Your task to perform on an android device: Open display settings Image 0: 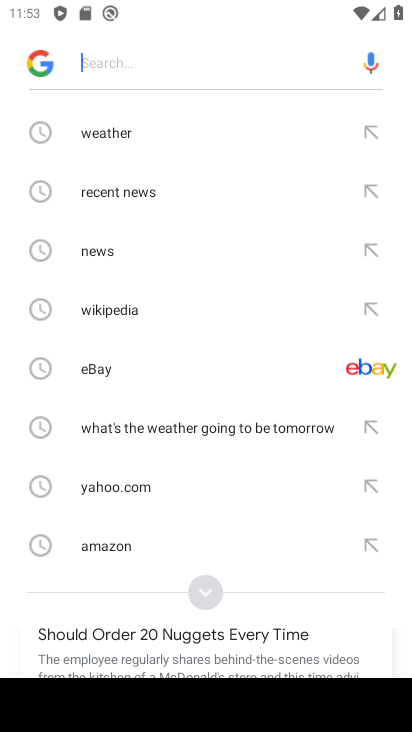
Step 0: press back button
Your task to perform on an android device: Open display settings Image 1: 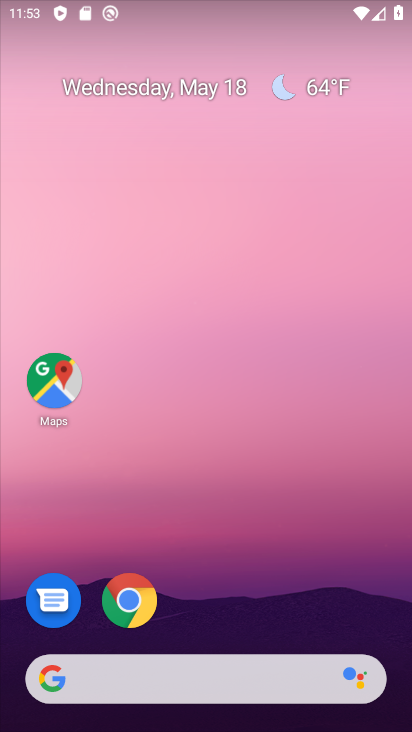
Step 1: drag from (200, 657) to (229, 15)
Your task to perform on an android device: Open display settings Image 2: 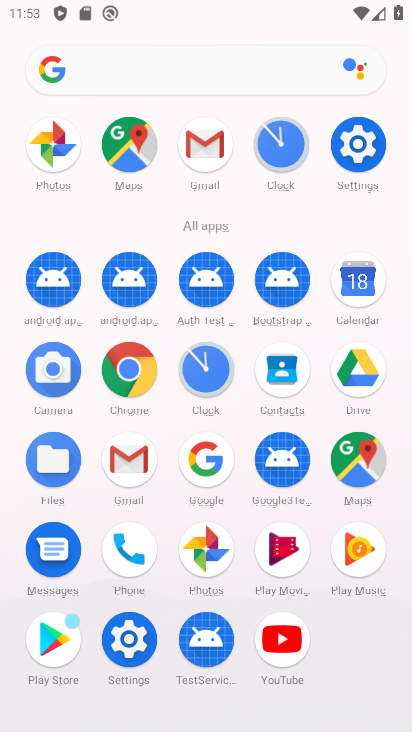
Step 2: click (349, 151)
Your task to perform on an android device: Open display settings Image 3: 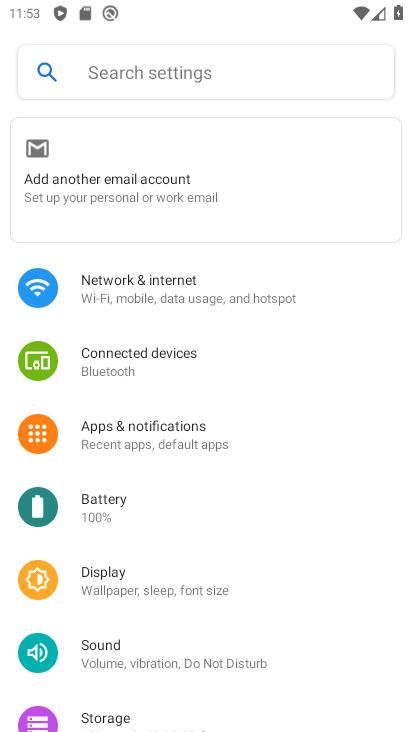
Step 3: click (133, 568)
Your task to perform on an android device: Open display settings Image 4: 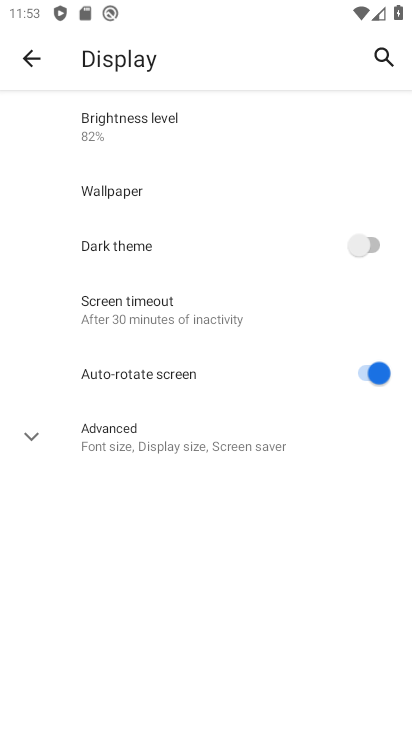
Step 4: click (65, 449)
Your task to perform on an android device: Open display settings Image 5: 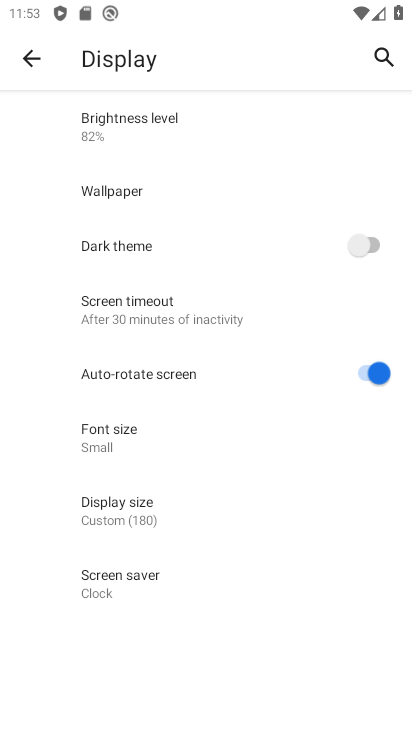
Step 5: task complete